Your task to perform on an android device: What's the weather going to be tomorrow? Image 0: 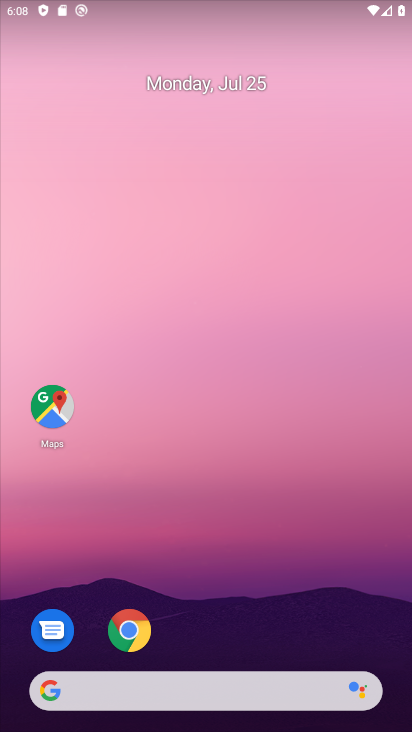
Step 0: drag from (202, 693) to (290, 47)
Your task to perform on an android device: What's the weather going to be tomorrow? Image 1: 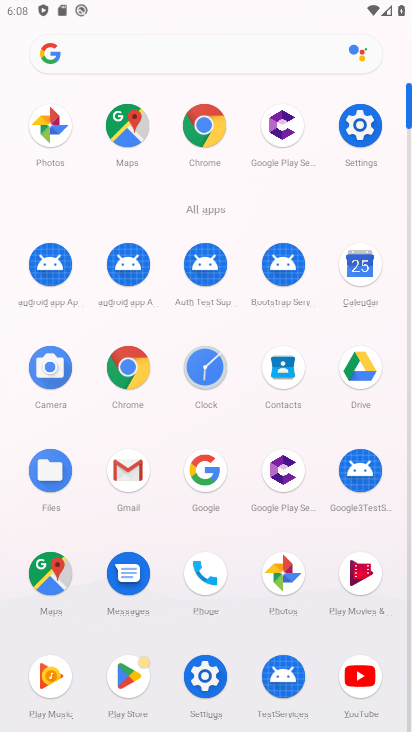
Step 1: click (201, 472)
Your task to perform on an android device: What's the weather going to be tomorrow? Image 2: 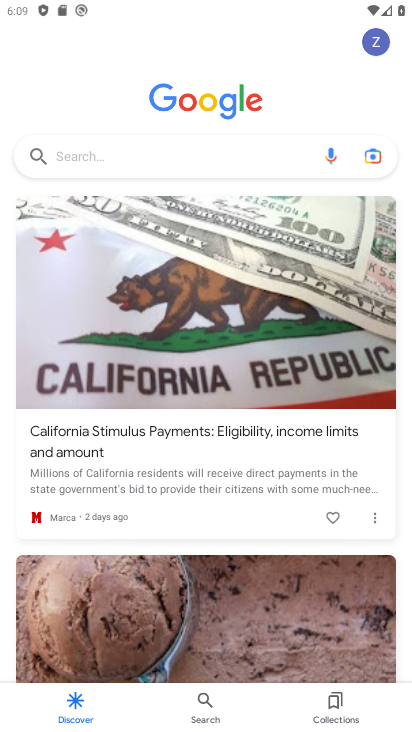
Step 2: click (149, 158)
Your task to perform on an android device: What's the weather going to be tomorrow? Image 3: 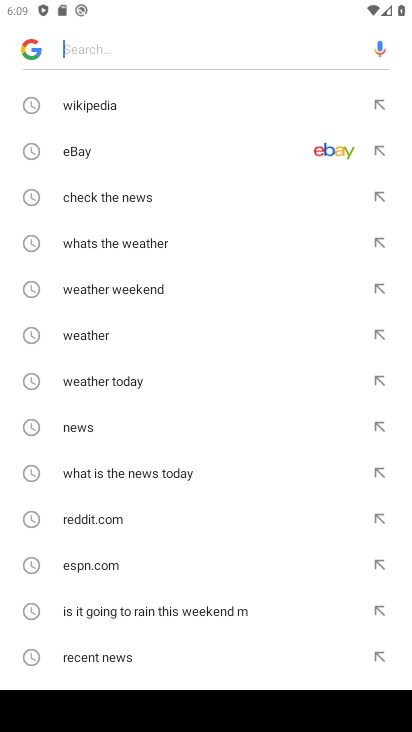
Step 3: type "What's the weather going to be tomorrow?"
Your task to perform on an android device: What's the weather going to be tomorrow? Image 4: 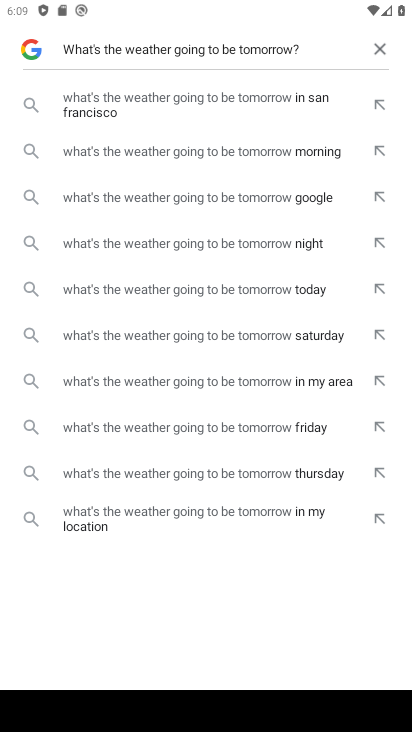
Step 4: click (186, 107)
Your task to perform on an android device: What's the weather going to be tomorrow? Image 5: 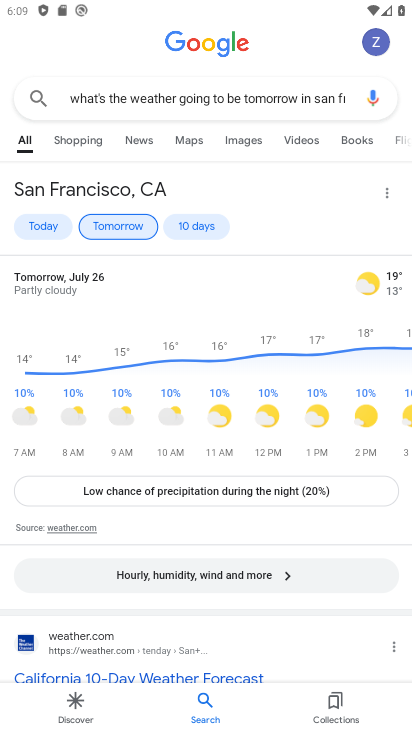
Step 5: task complete